Your task to perform on an android device: Toggle the flashlight Image 0: 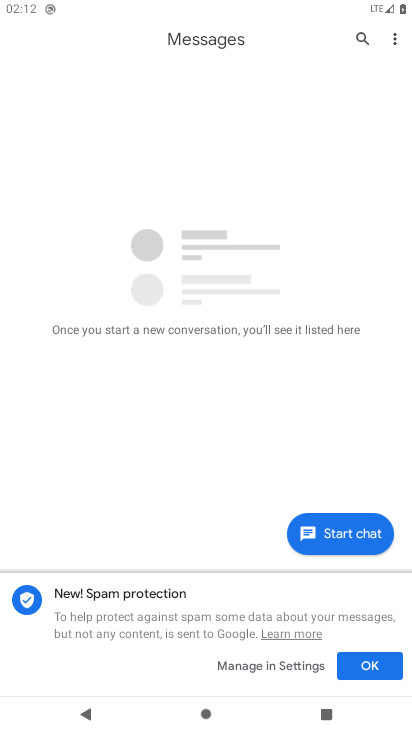
Step 0: press home button
Your task to perform on an android device: Toggle the flashlight Image 1: 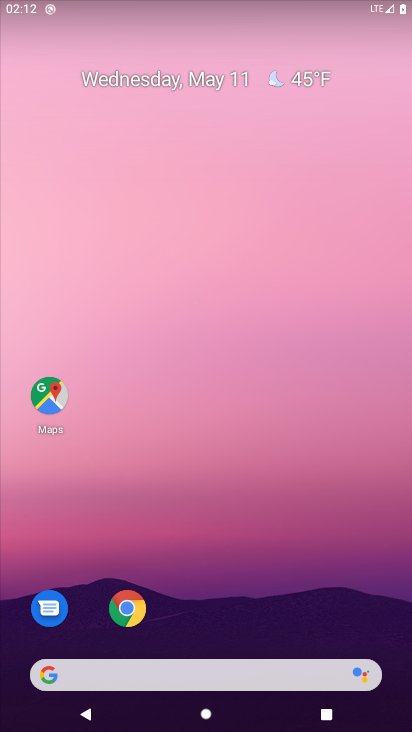
Step 1: drag from (188, 630) to (313, 0)
Your task to perform on an android device: Toggle the flashlight Image 2: 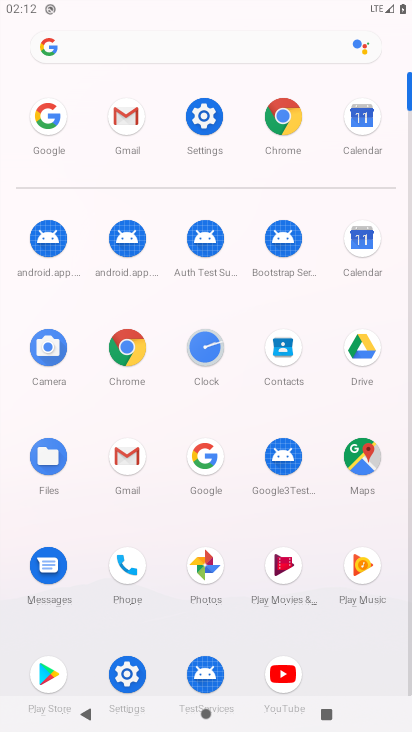
Step 2: click (197, 118)
Your task to perform on an android device: Toggle the flashlight Image 3: 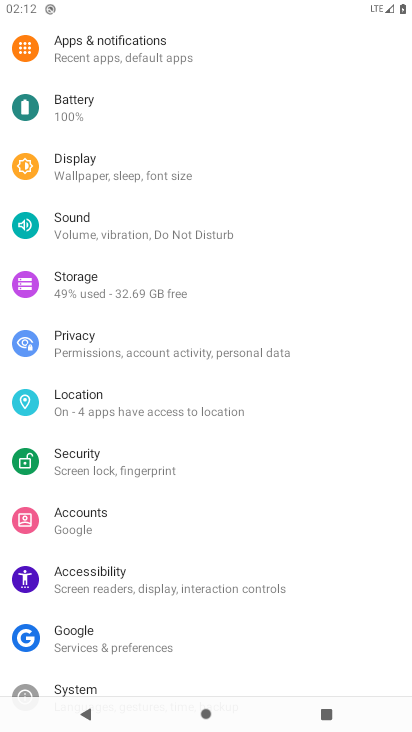
Step 3: drag from (150, 194) to (155, 484)
Your task to perform on an android device: Toggle the flashlight Image 4: 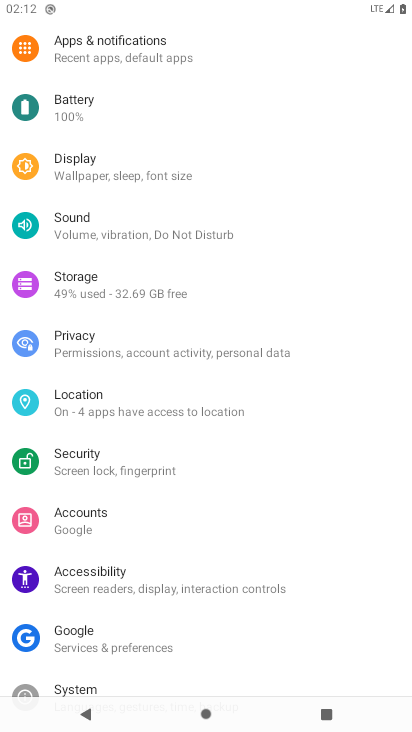
Step 4: drag from (163, 171) to (159, 630)
Your task to perform on an android device: Toggle the flashlight Image 5: 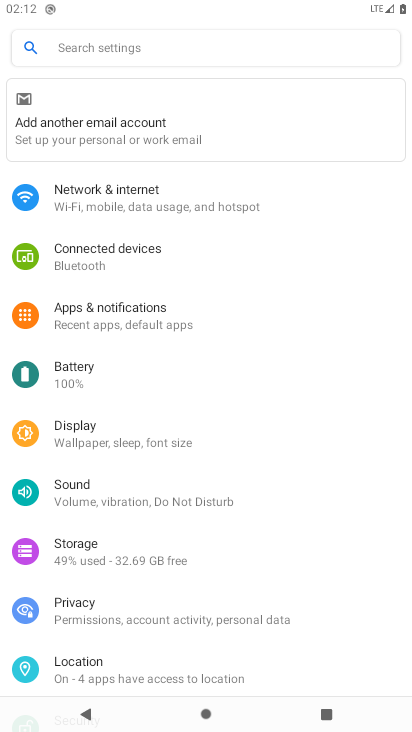
Step 5: click (124, 44)
Your task to perform on an android device: Toggle the flashlight Image 6: 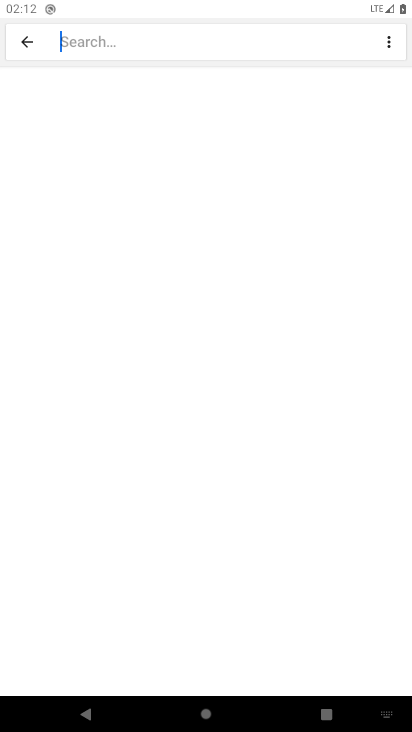
Step 6: type "flashlight"
Your task to perform on an android device: Toggle the flashlight Image 7: 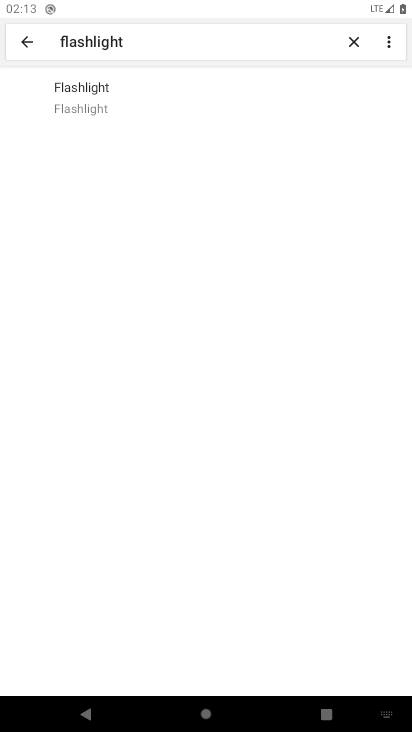
Step 7: click (114, 91)
Your task to perform on an android device: Toggle the flashlight Image 8: 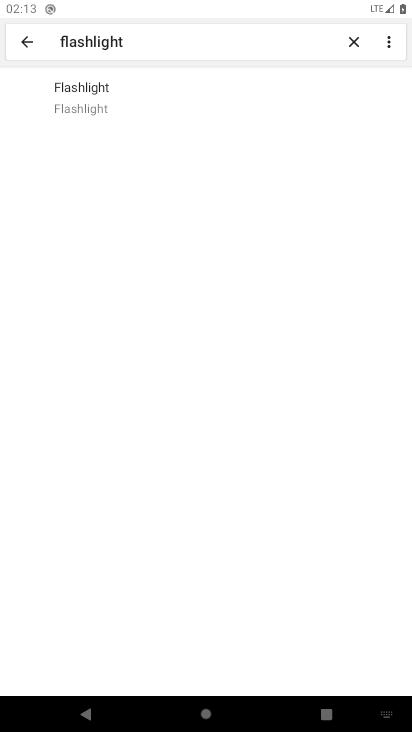
Step 8: task complete